Your task to perform on an android device: turn vacation reply on in the gmail app Image 0: 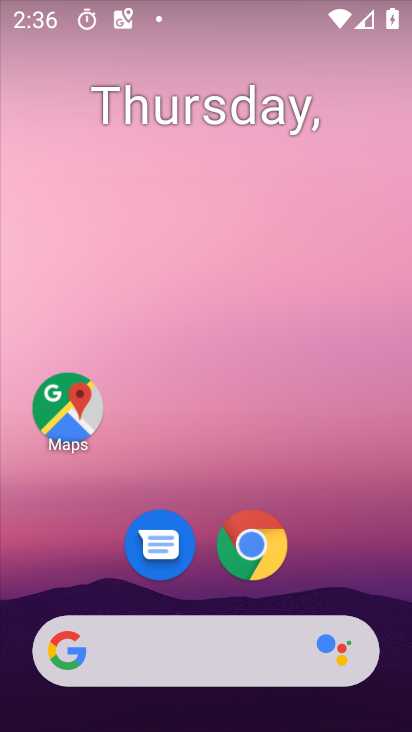
Step 0: drag from (206, 653) to (201, 171)
Your task to perform on an android device: turn vacation reply on in the gmail app Image 1: 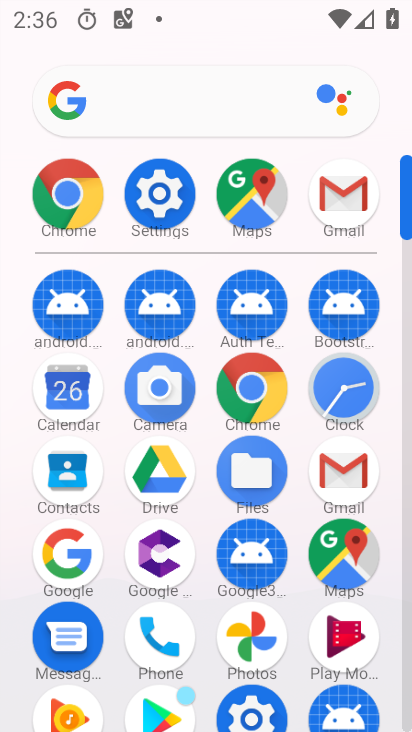
Step 1: click (343, 469)
Your task to perform on an android device: turn vacation reply on in the gmail app Image 2: 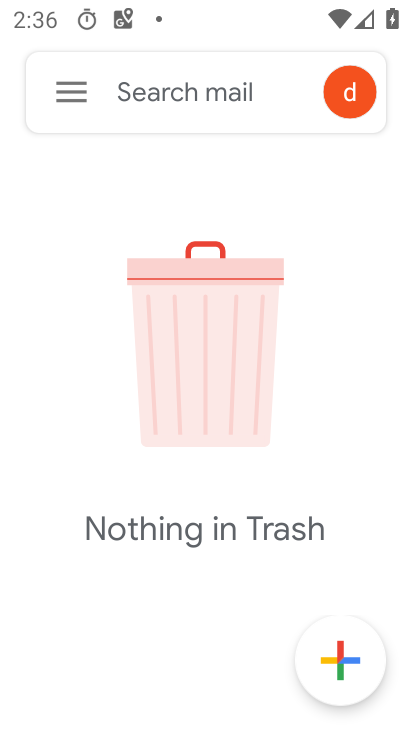
Step 2: click (60, 90)
Your task to perform on an android device: turn vacation reply on in the gmail app Image 3: 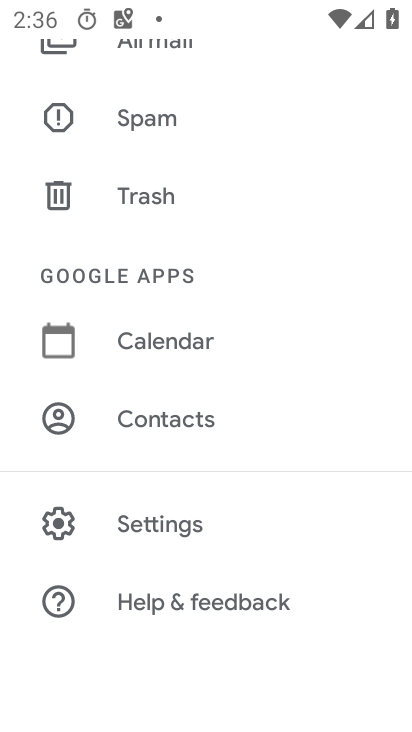
Step 3: click (156, 526)
Your task to perform on an android device: turn vacation reply on in the gmail app Image 4: 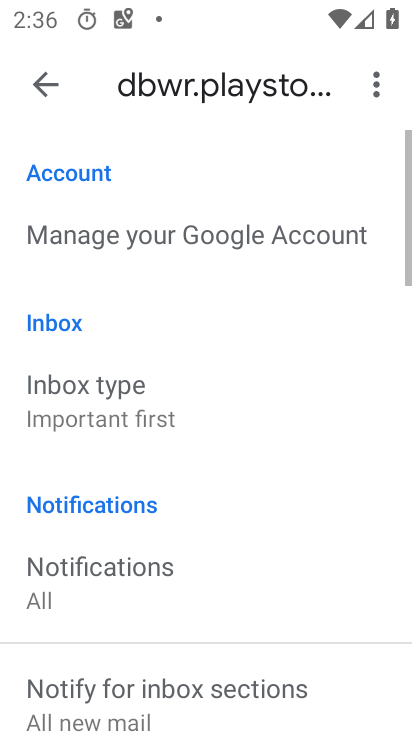
Step 4: task complete